Your task to perform on an android device: clear history in the chrome app Image 0: 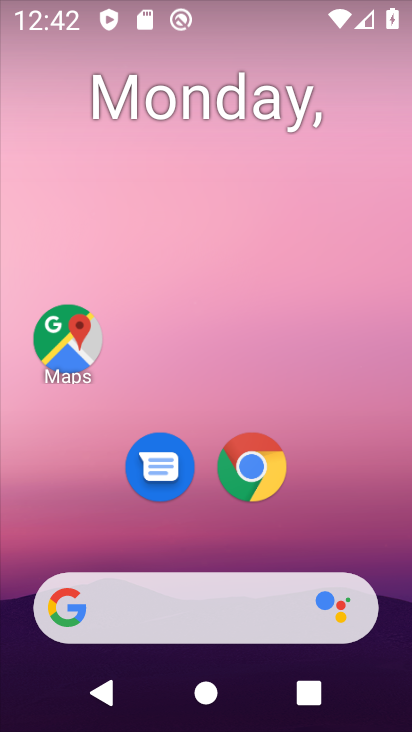
Step 0: click (261, 451)
Your task to perform on an android device: clear history in the chrome app Image 1: 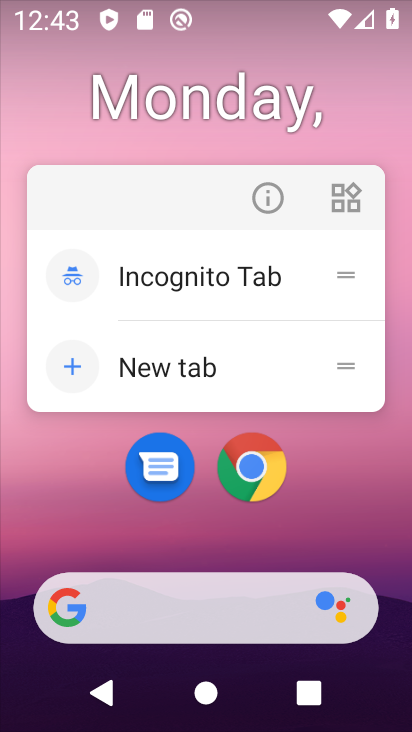
Step 1: click (269, 450)
Your task to perform on an android device: clear history in the chrome app Image 2: 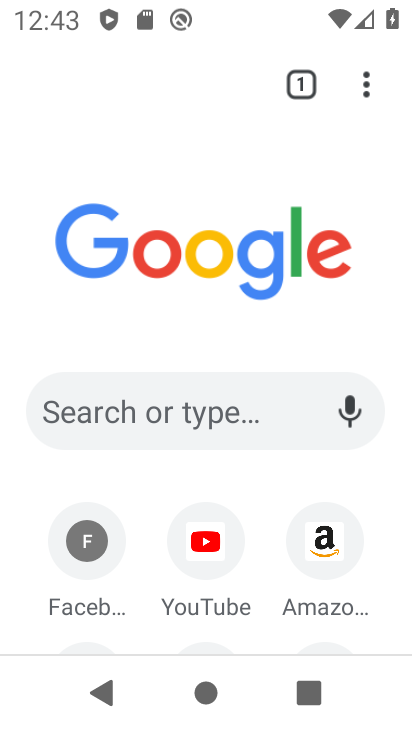
Step 2: click (360, 99)
Your task to perform on an android device: clear history in the chrome app Image 3: 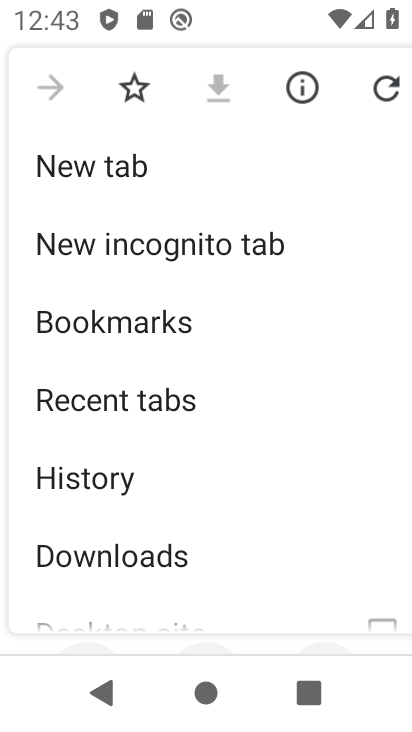
Step 3: click (122, 484)
Your task to perform on an android device: clear history in the chrome app Image 4: 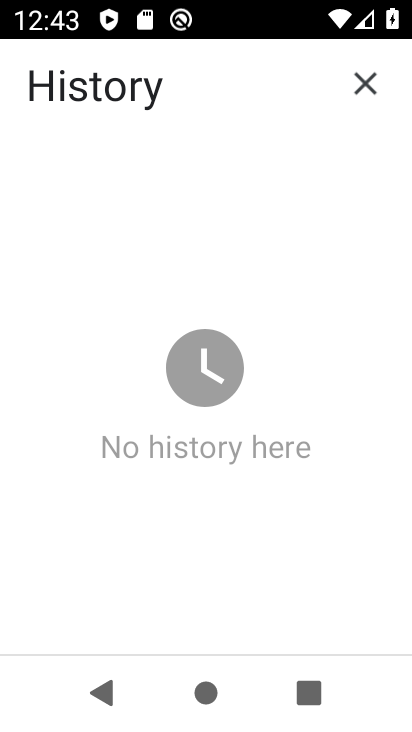
Step 4: task complete